Your task to perform on an android device: Empty the shopping cart on bestbuy. Add "acer nitro" to the cart on bestbuy Image 0: 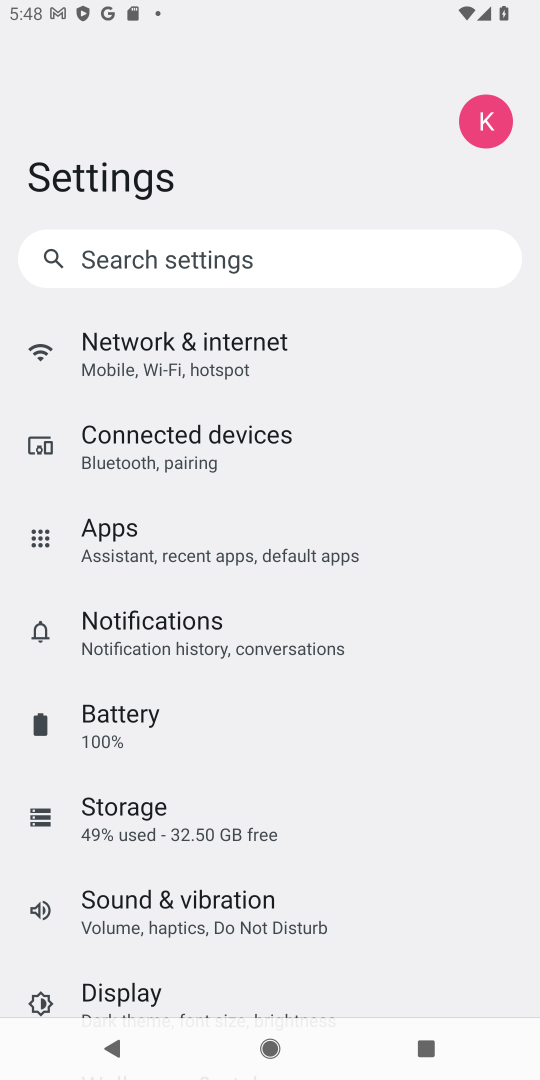
Step 0: press home button
Your task to perform on an android device: Empty the shopping cart on bestbuy. Add "acer nitro" to the cart on bestbuy Image 1: 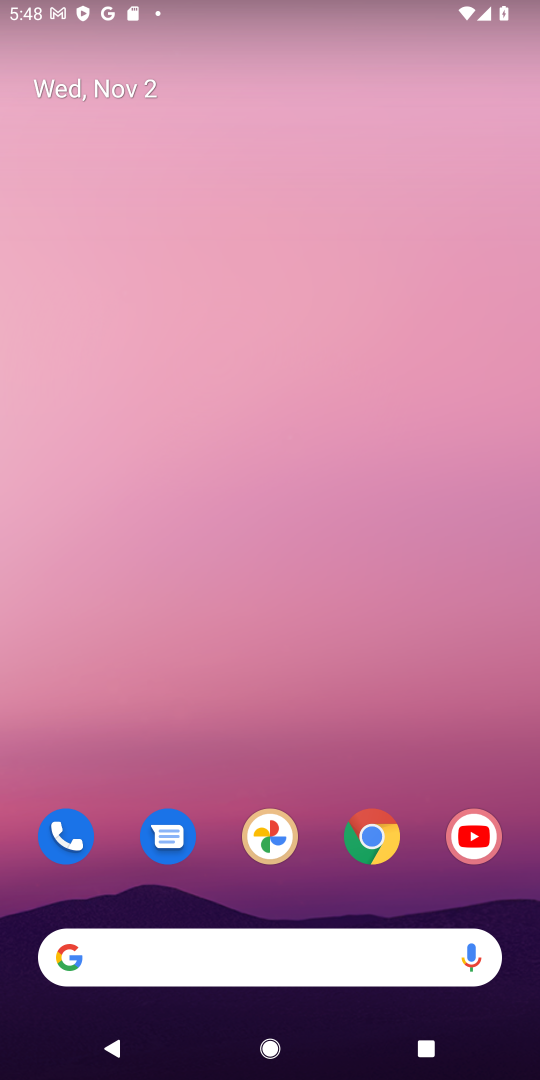
Step 1: drag from (244, 951) to (222, 323)
Your task to perform on an android device: Empty the shopping cart on bestbuy. Add "acer nitro" to the cart on bestbuy Image 2: 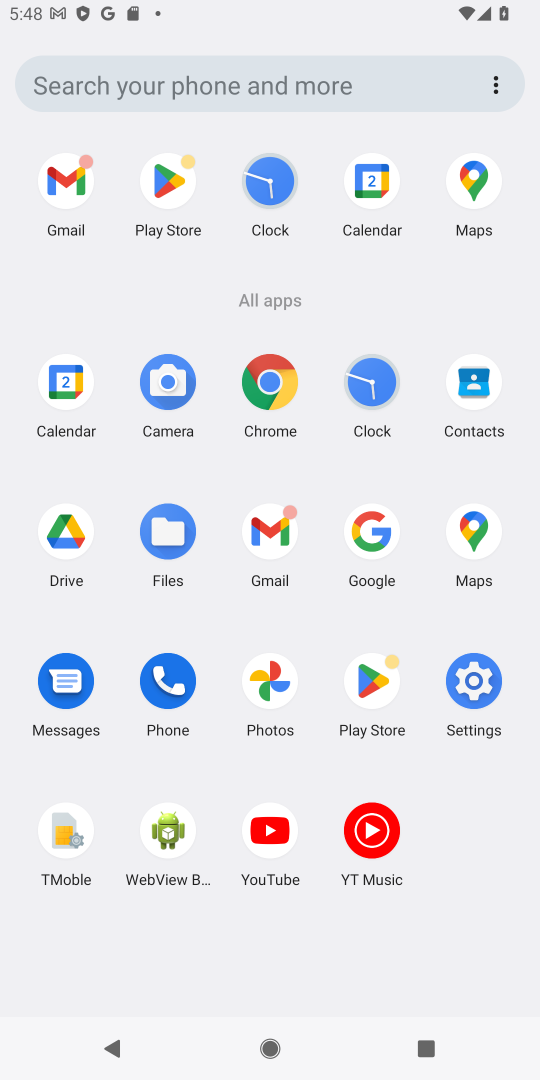
Step 2: click (371, 533)
Your task to perform on an android device: Empty the shopping cart on bestbuy. Add "acer nitro" to the cart on bestbuy Image 3: 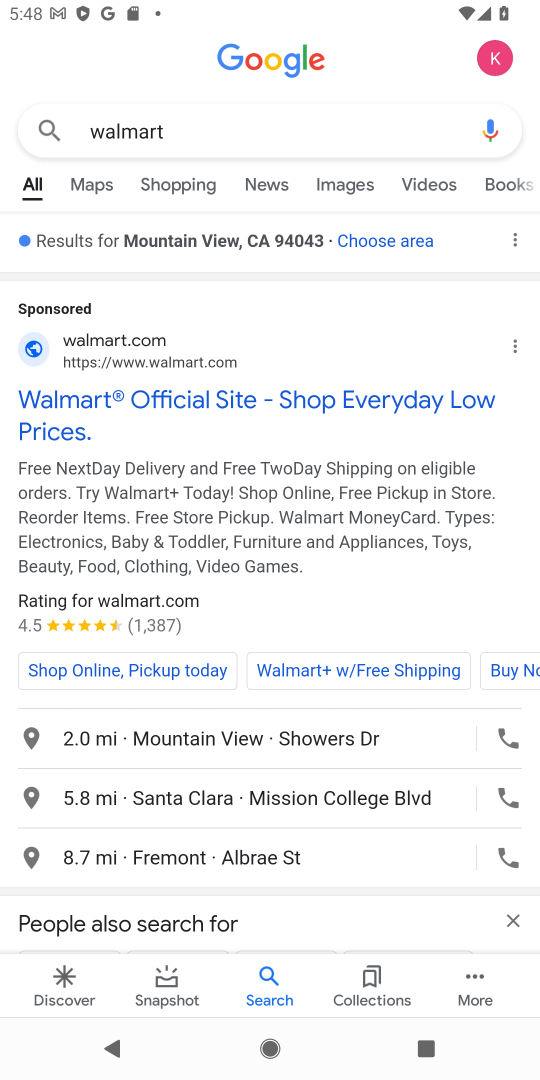
Step 3: click (147, 134)
Your task to perform on an android device: Empty the shopping cart on bestbuy. Add "acer nitro" to the cart on bestbuy Image 4: 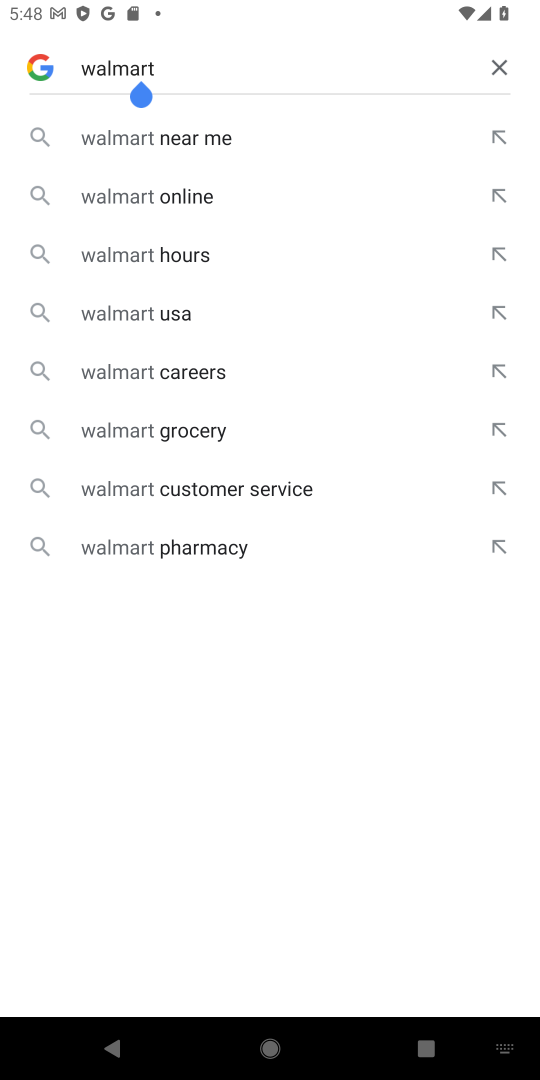
Step 4: click (494, 66)
Your task to perform on an android device: Empty the shopping cart on bestbuy. Add "acer nitro" to the cart on bestbuy Image 5: 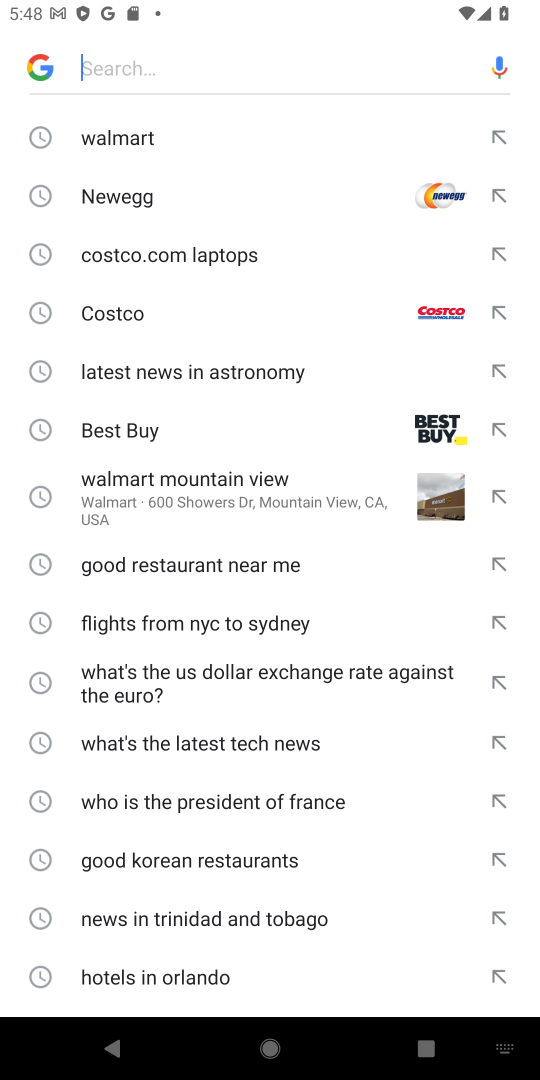
Step 5: type "bestbuy"
Your task to perform on an android device: Empty the shopping cart on bestbuy. Add "acer nitro" to the cart on bestbuy Image 6: 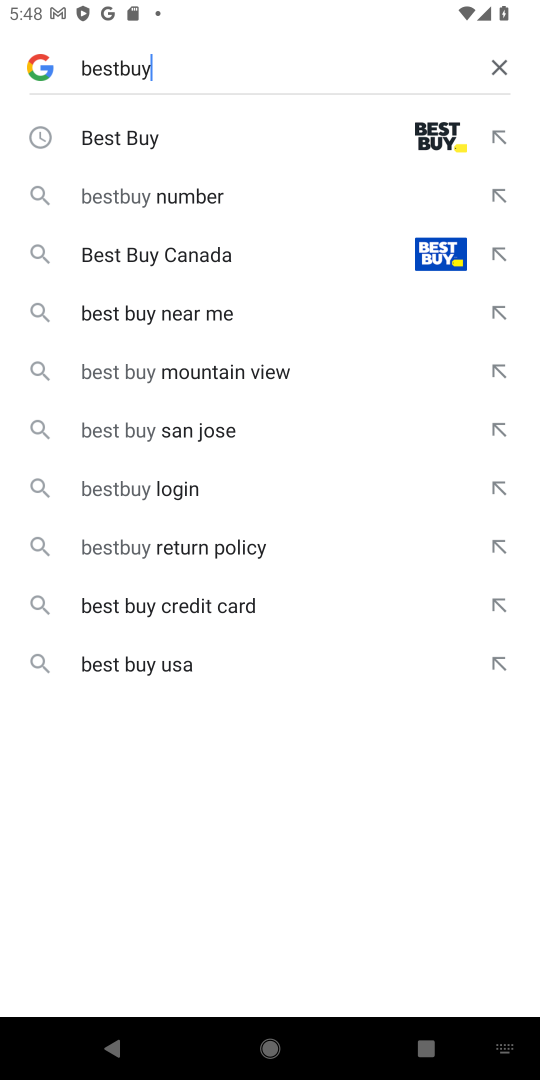
Step 6: click (117, 135)
Your task to perform on an android device: Empty the shopping cart on bestbuy. Add "acer nitro" to the cart on bestbuy Image 7: 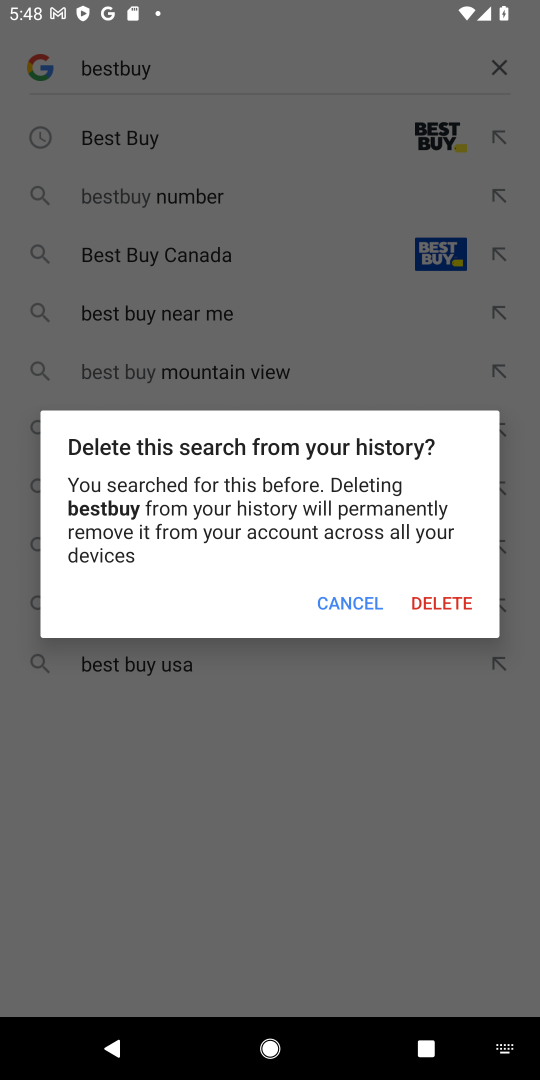
Step 7: click (343, 608)
Your task to perform on an android device: Empty the shopping cart on bestbuy. Add "acer nitro" to the cart on bestbuy Image 8: 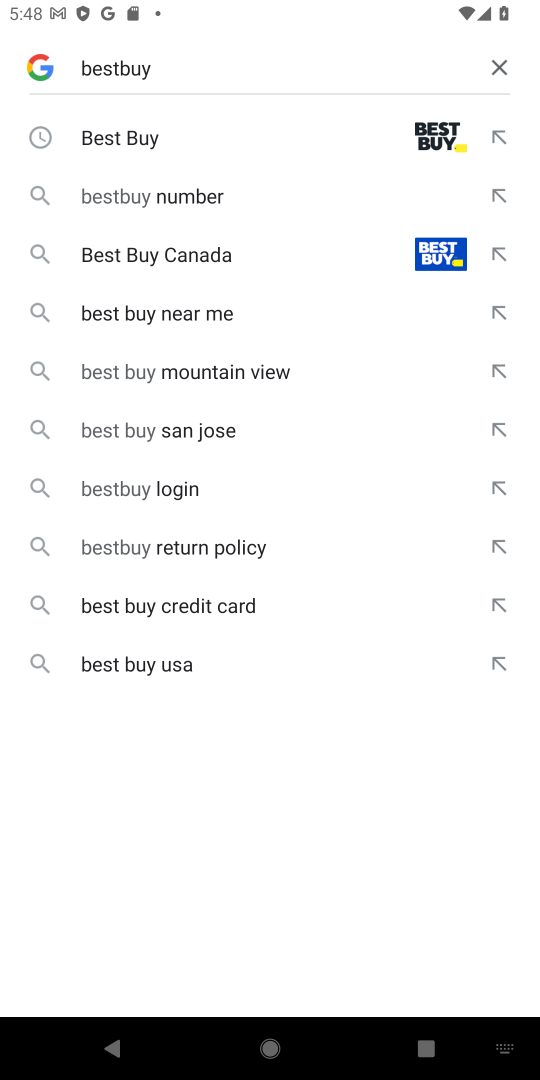
Step 8: click (422, 142)
Your task to perform on an android device: Empty the shopping cart on bestbuy. Add "acer nitro" to the cart on bestbuy Image 9: 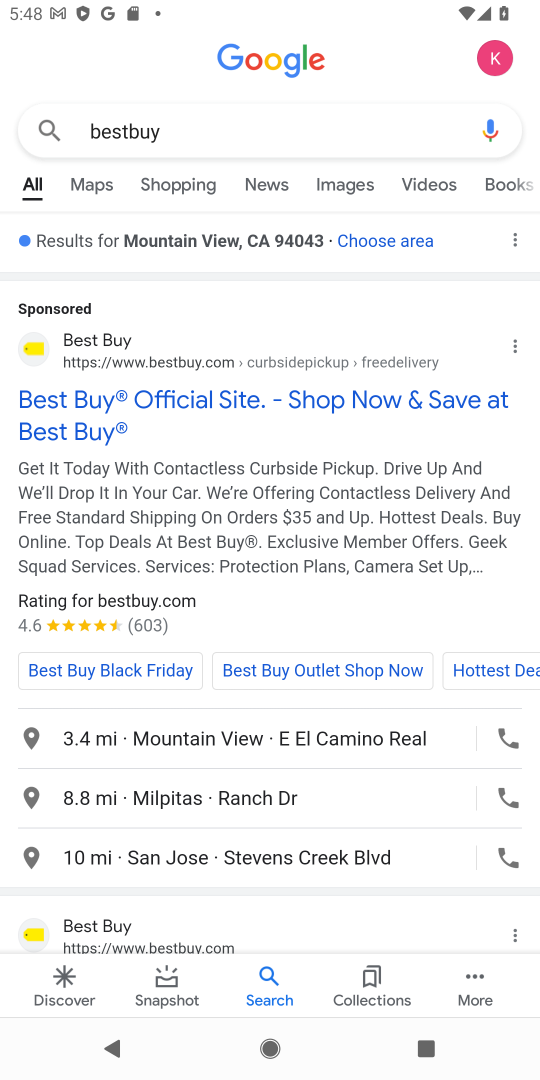
Step 9: click (267, 404)
Your task to perform on an android device: Empty the shopping cart on bestbuy. Add "acer nitro" to the cart on bestbuy Image 10: 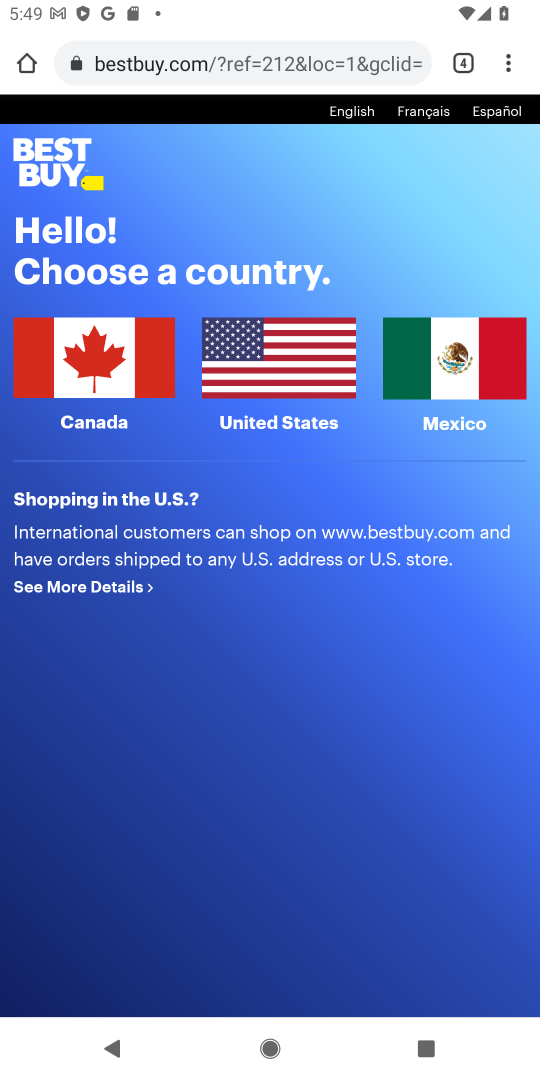
Step 10: click (111, 375)
Your task to perform on an android device: Empty the shopping cart on bestbuy. Add "acer nitro" to the cart on bestbuy Image 11: 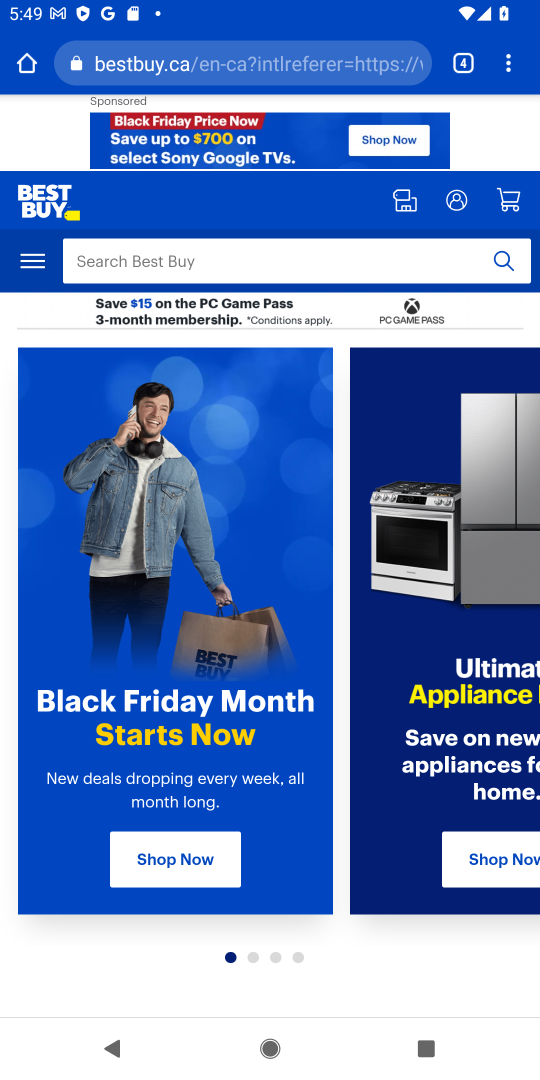
Step 11: click (223, 254)
Your task to perform on an android device: Empty the shopping cart on bestbuy. Add "acer nitro" to the cart on bestbuy Image 12: 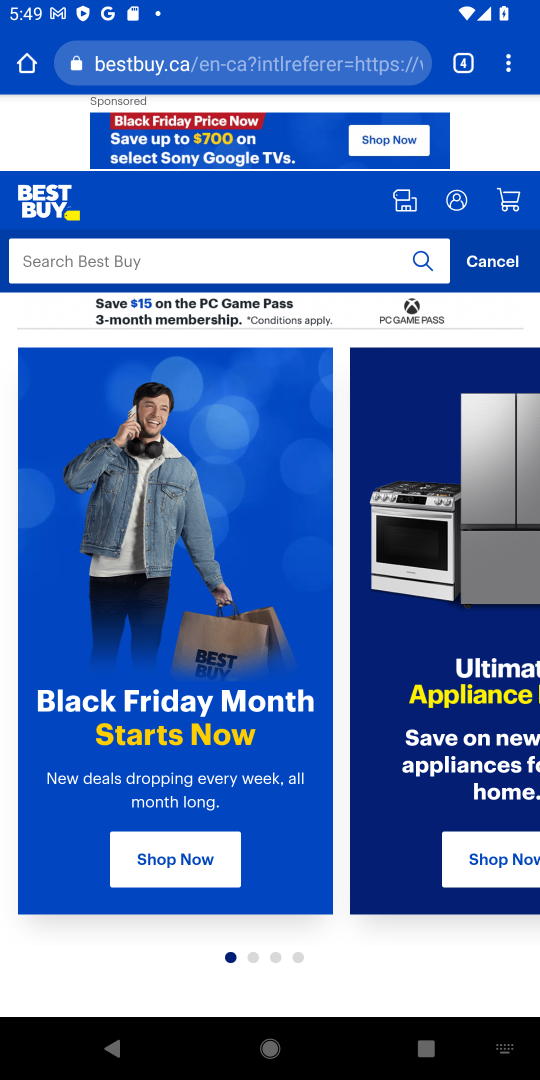
Step 12: type "acer nitro"
Your task to perform on an android device: Empty the shopping cart on bestbuy. Add "acer nitro" to the cart on bestbuy Image 13: 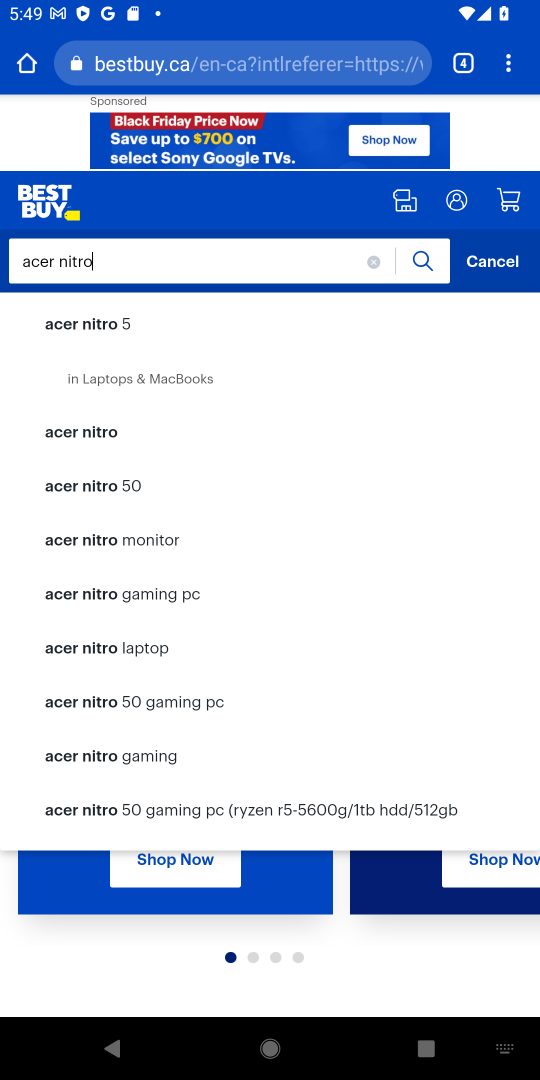
Step 13: click (95, 323)
Your task to perform on an android device: Empty the shopping cart on bestbuy. Add "acer nitro" to the cart on bestbuy Image 14: 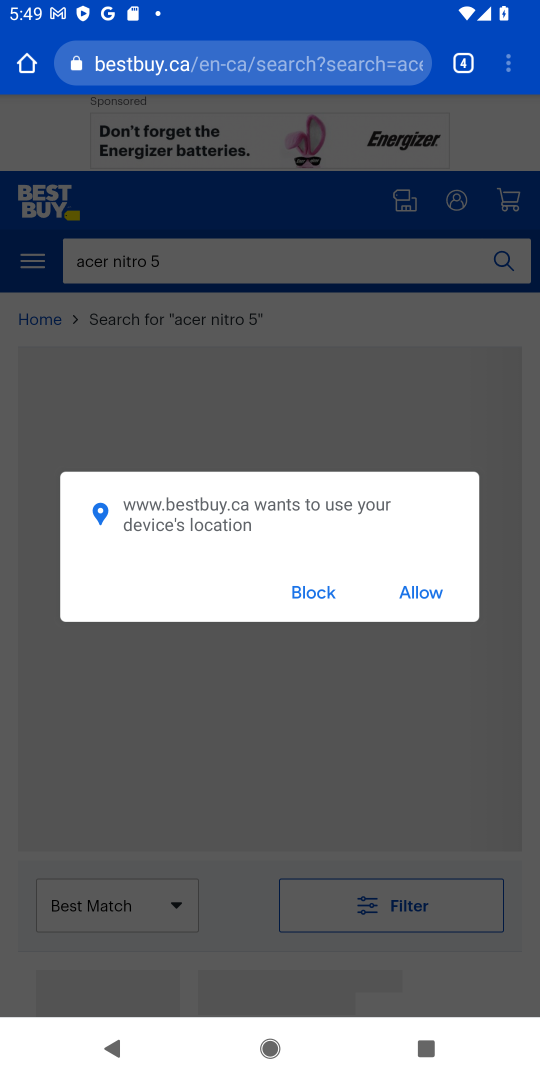
Step 14: click (317, 596)
Your task to perform on an android device: Empty the shopping cart on bestbuy. Add "acer nitro" to the cart on bestbuy Image 15: 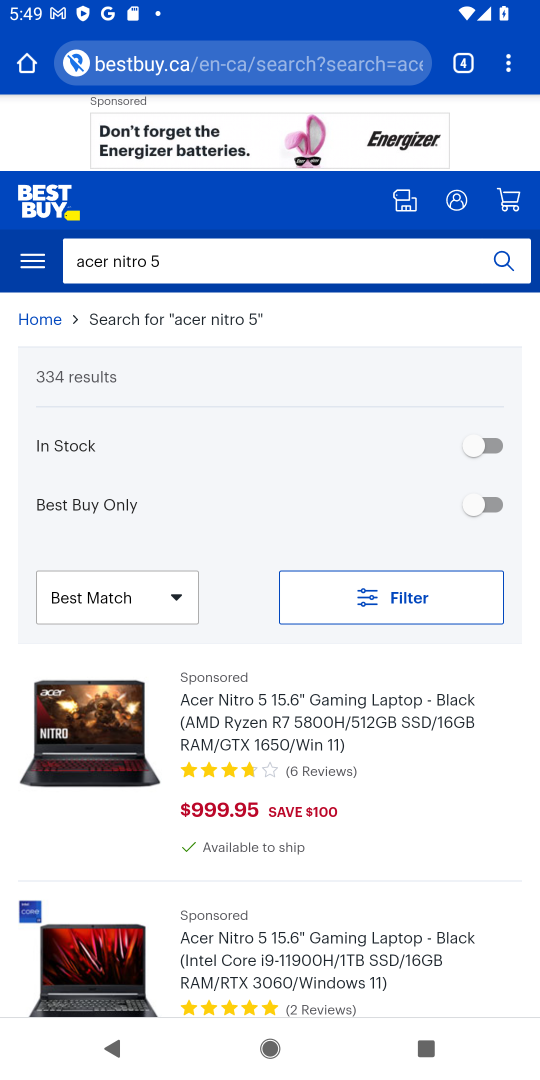
Step 15: click (290, 747)
Your task to perform on an android device: Empty the shopping cart on bestbuy. Add "acer nitro" to the cart on bestbuy Image 16: 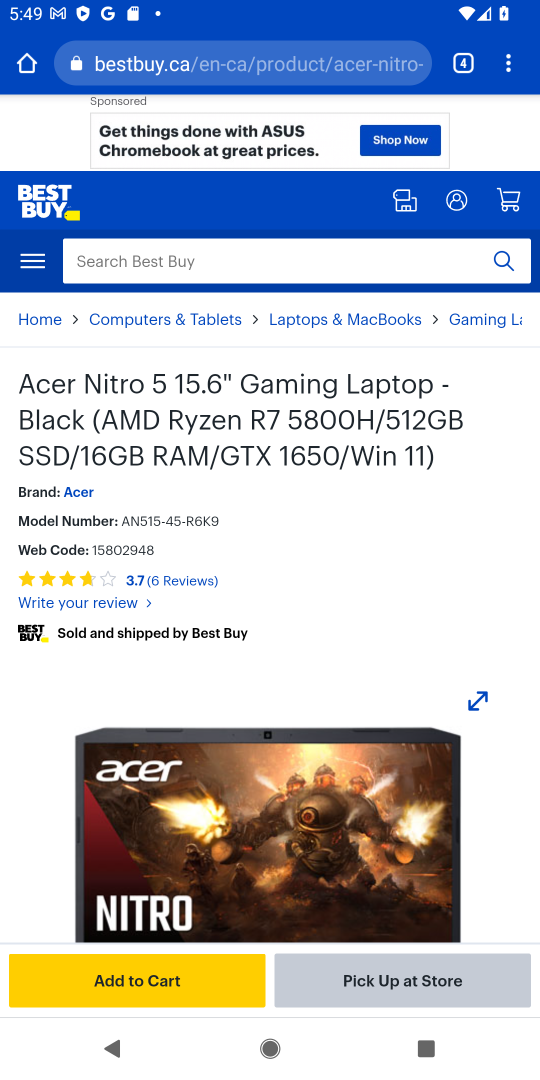
Step 16: click (153, 990)
Your task to perform on an android device: Empty the shopping cart on bestbuy. Add "acer nitro" to the cart on bestbuy Image 17: 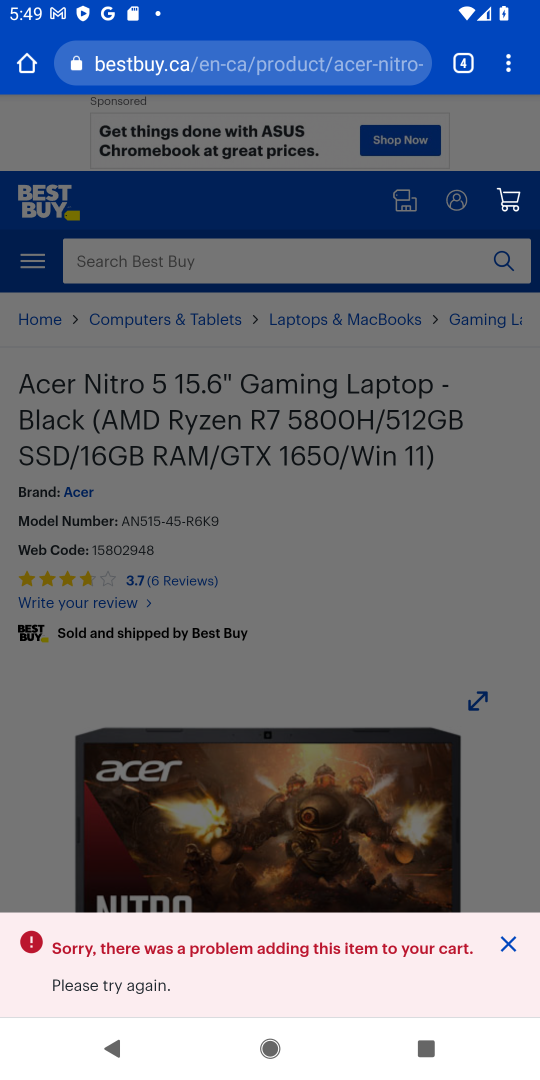
Step 17: task complete